Your task to perform on an android device: Go to sound settings Image 0: 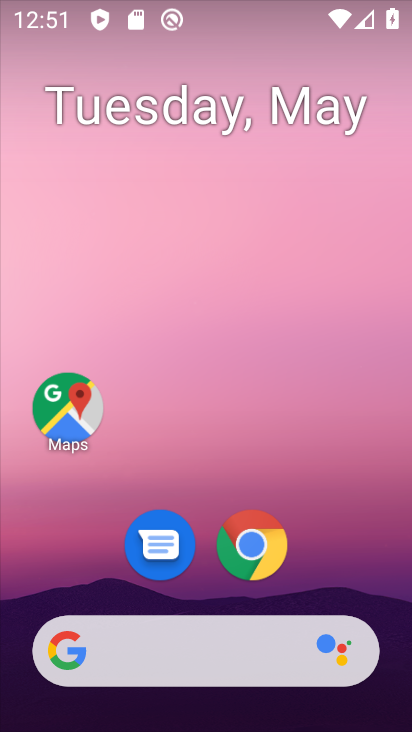
Step 0: drag from (399, 583) to (383, 104)
Your task to perform on an android device: Go to sound settings Image 1: 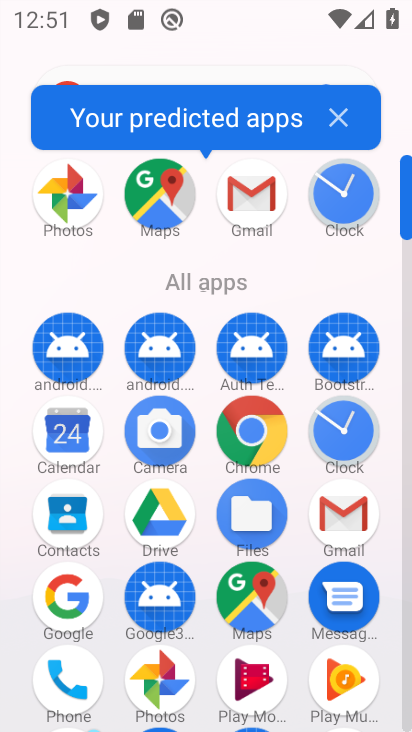
Step 1: click (403, 686)
Your task to perform on an android device: Go to sound settings Image 2: 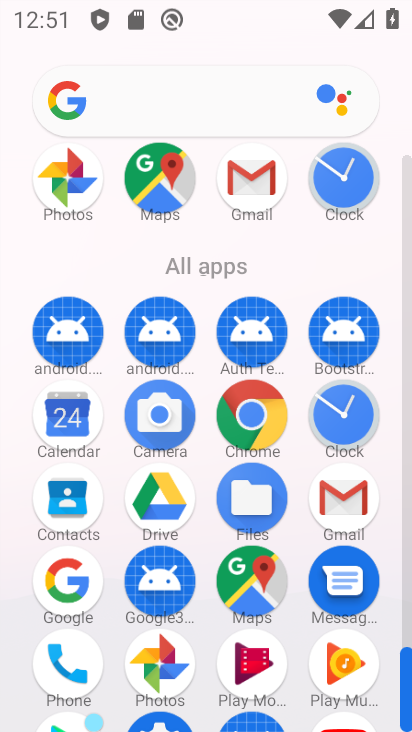
Step 2: drag from (405, 617) to (395, 429)
Your task to perform on an android device: Go to sound settings Image 3: 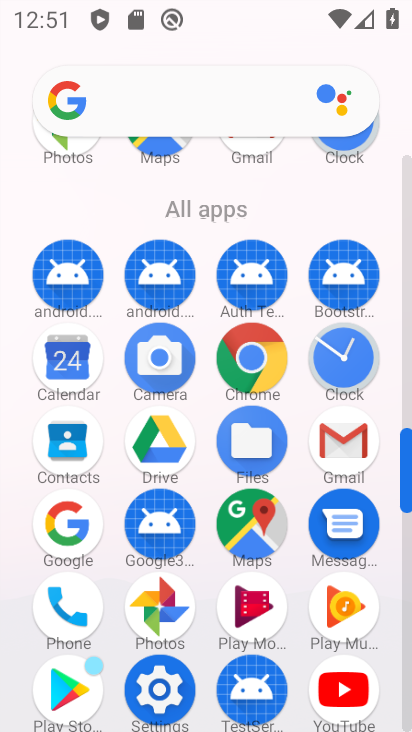
Step 3: click (159, 686)
Your task to perform on an android device: Go to sound settings Image 4: 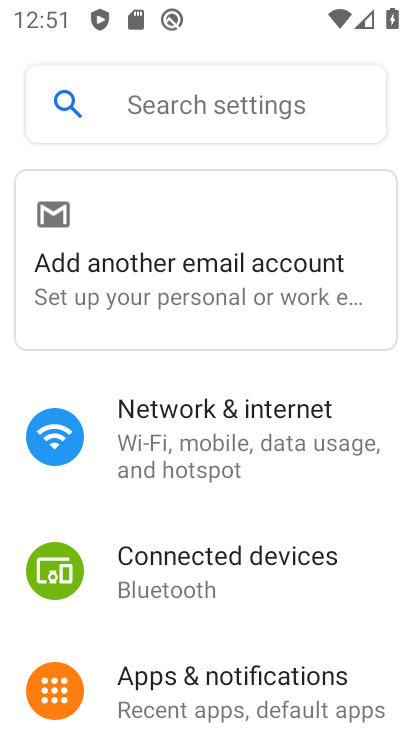
Step 4: drag from (356, 616) to (349, 150)
Your task to perform on an android device: Go to sound settings Image 5: 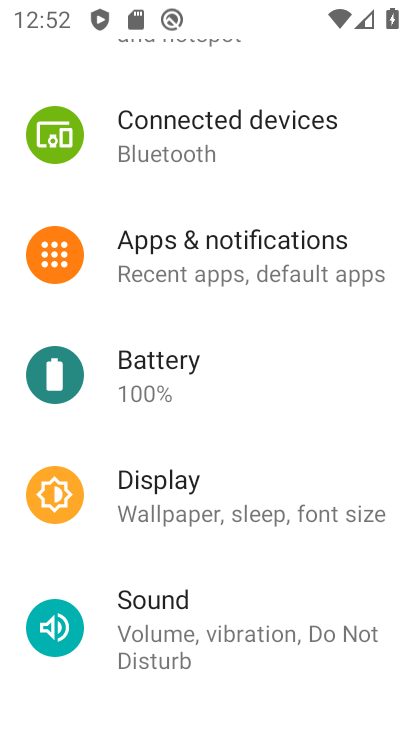
Step 5: click (139, 614)
Your task to perform on an android device: Go to sound settings Image 6: 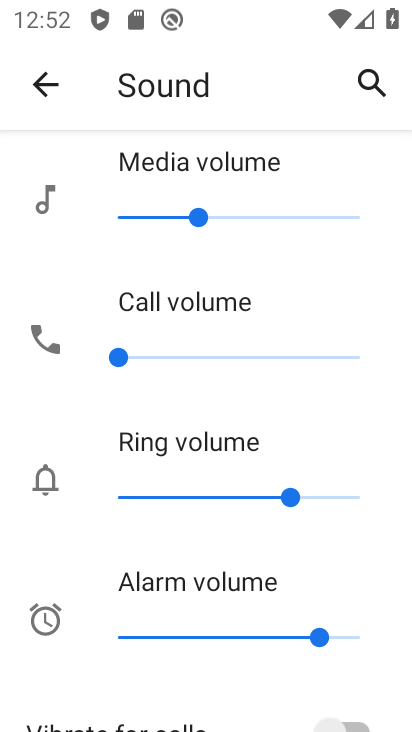
Step 6: task complete